Your task to perform on an android device: turn off notifications in google photos Image 0: 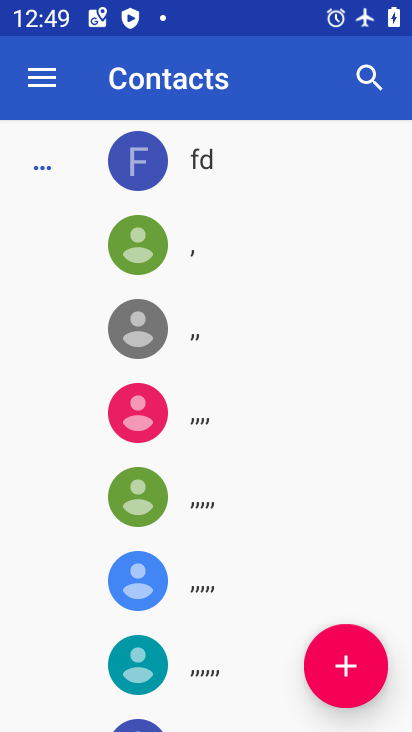
Step 0: press home button
Your task to perform on an android device: turn off notifications in google photos Image 1: 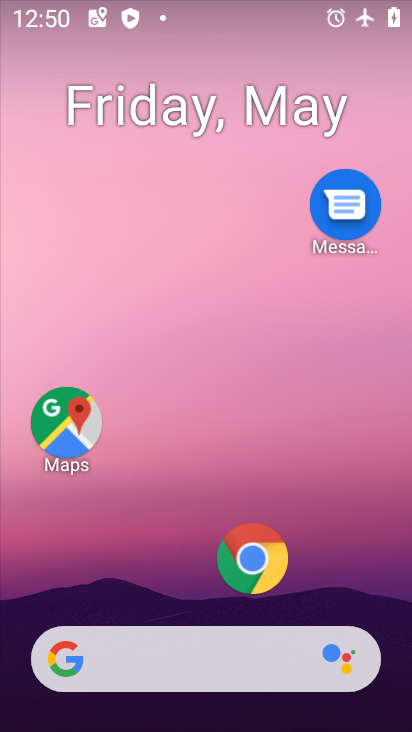
Step 1: drag from (193, 642) to (204, 351)
Your task to perform on an android device: turn off notifications in google photos Image 2: 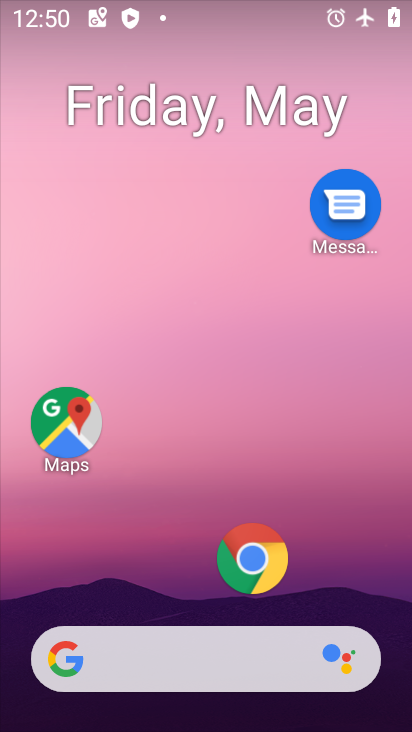
Step 2: drag from (166, 646) to (193, 424)
Your task to perform on an android device: turn off notifications in google photos Image 3: 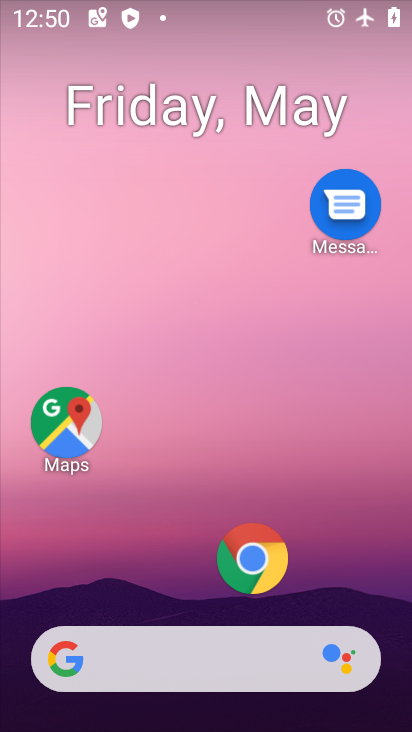
Step 3: drag from (173, 600) to (170, 324)
Your task to perform on an android device: turn off notifications in google photos Image 4: 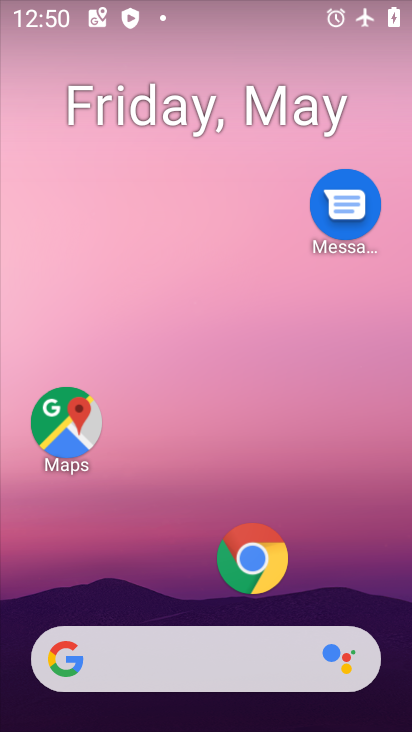
Step 4: drag from (155, 640) to (172, 228)
Your task to perform on an android device: turn off notifications in google photos Image 5: 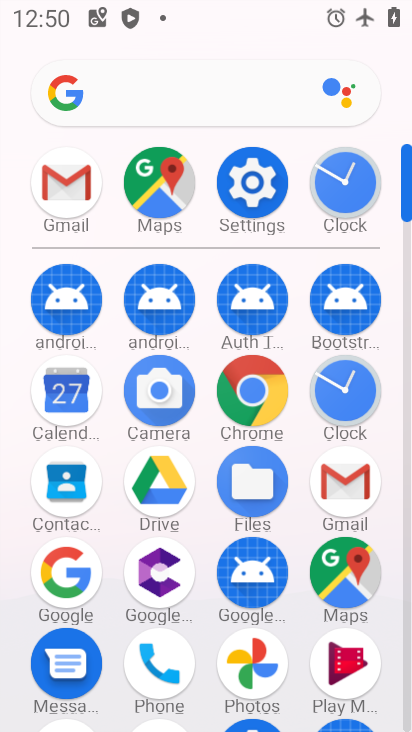
Step 5: drag from (208, 490) to (221, 258)
Your task to perform on an android device: turn off notifications in google photos Image 6: 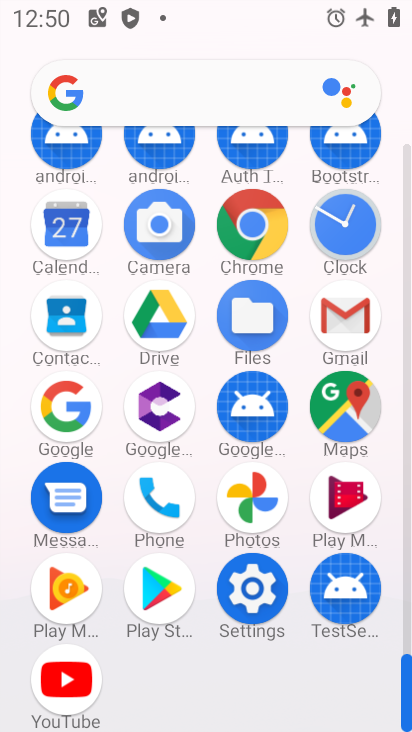
Step 6: click (254, 510)
Your task to perform on an android device: turn off notifications in google photos Image 7: 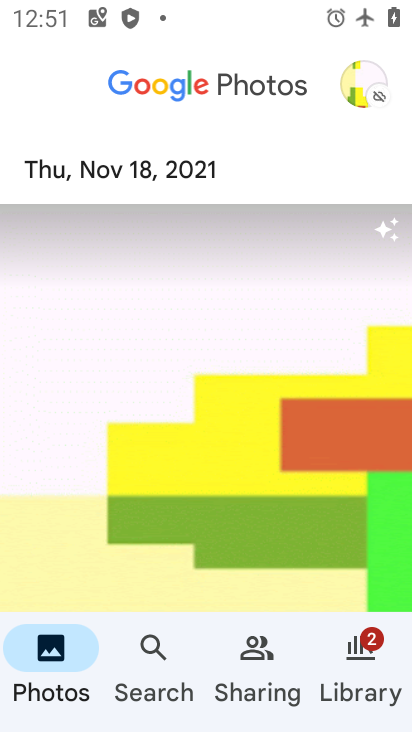
Step 7: click (357, 95)
Your task to perform on an android device: turn off notifications in google photos Image 8: 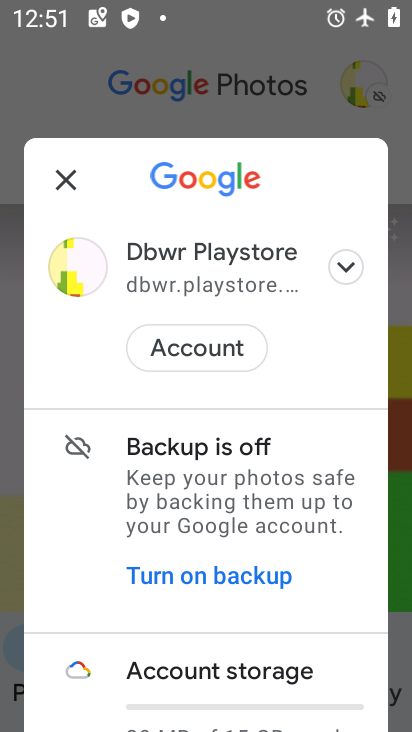
Step 8: drag from (171, 626) to (166, 270)
Your task to perform on an android device: turn off notifications in google photos Image 9: 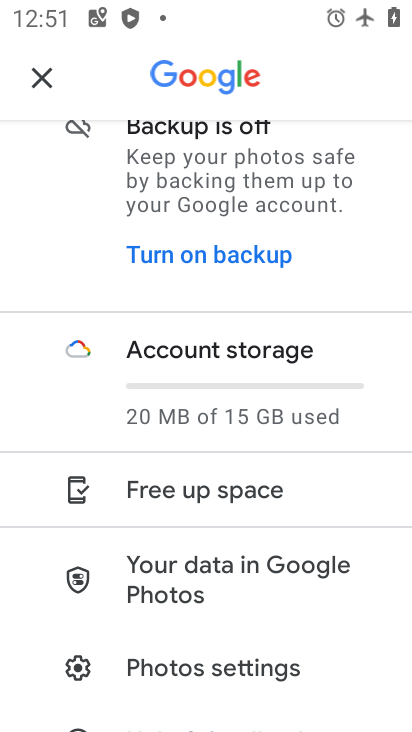
Step 9: drag from (202, 535) to (215, 345)
Your task to perform on an android device: turn off notifications in google photos Image 10: 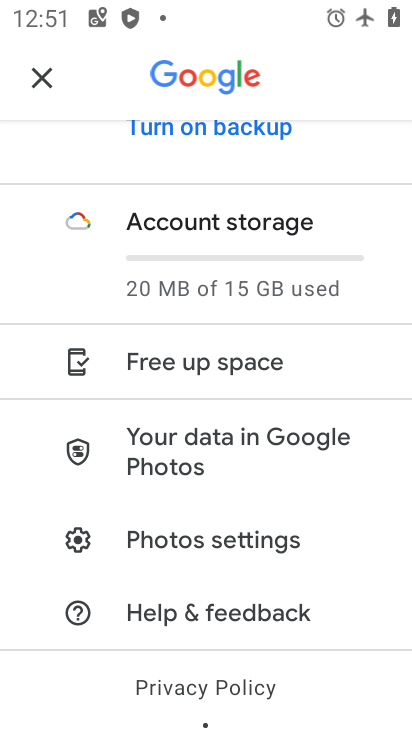
Step 10: click (225, 535)
Your task to perform on an android device: turn off notifications in google photos Image 11: 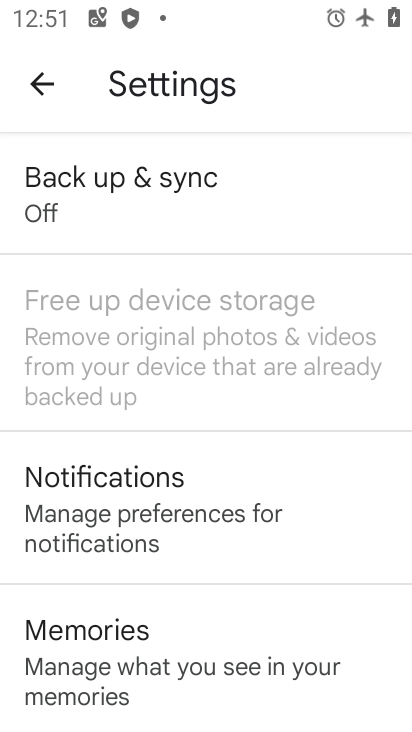
Step 11: click (210, 505)
Your task to perform on an android device: turn off notifications in google photos Image 12: 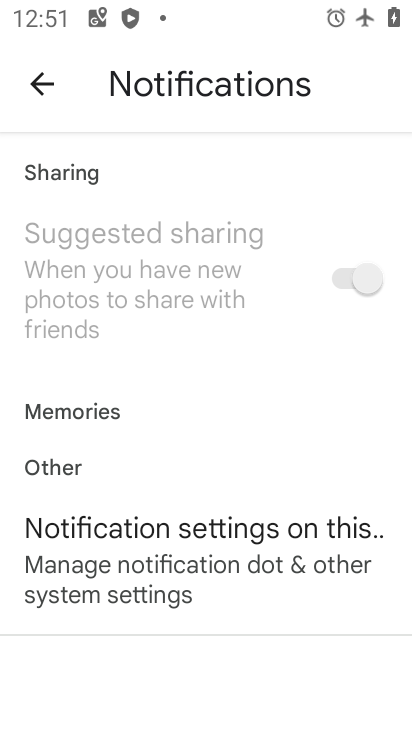
Step 12: drag from (196, 539) to (192, 257)
Your task to perform on an android device: turn off notifications in google photos Image 13: 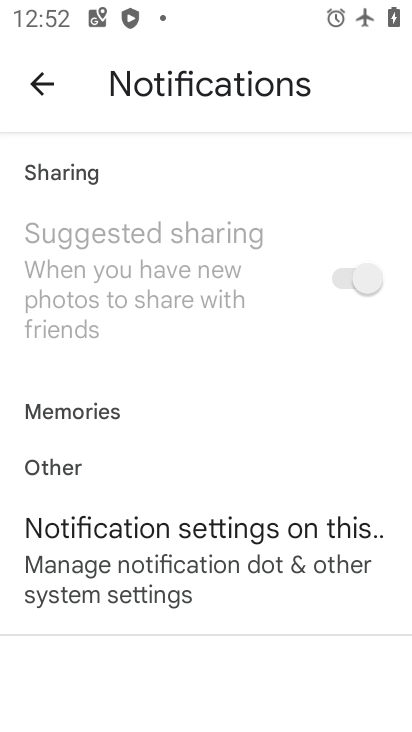
Step 13: click (189, 547)
Your task to perform on an android device: turn off notifications in google photos Image 14: 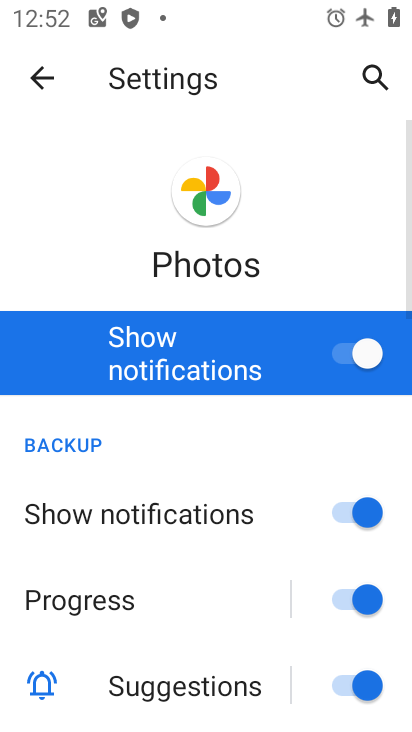
Step 14: drag from (197, 557) to (196, 399)
Your task to perform on an android device: turn off notifications in google photos Image 15: 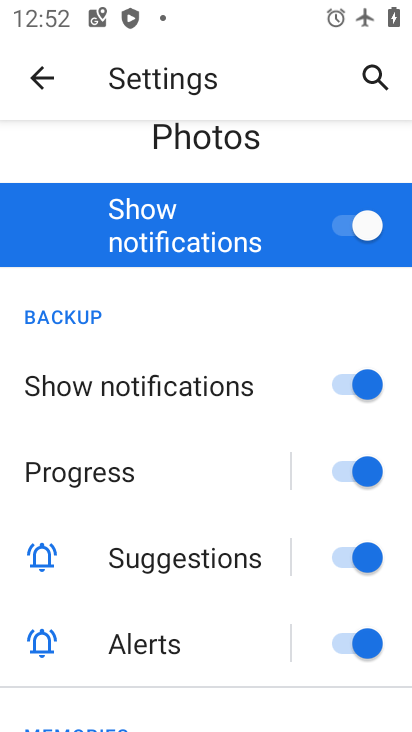
Step 15: click (332, 220)
Your task to perform on an android device: turn off notifications in google photos Image 16: 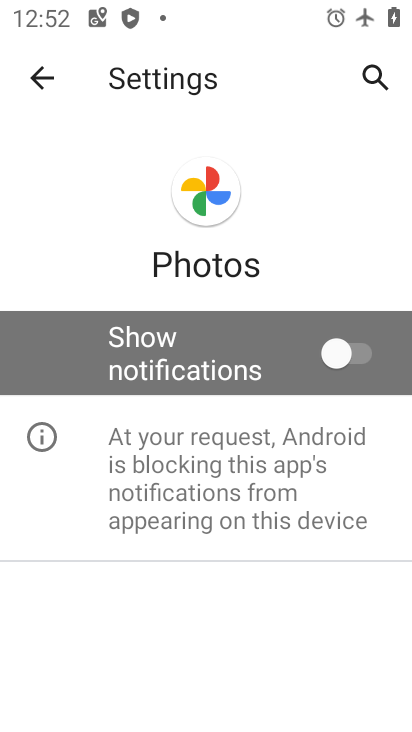
Step 16: task complete